Your task to perform on an android device: open app "WhatsApp Messenger" (install if not already installed) Image 0: 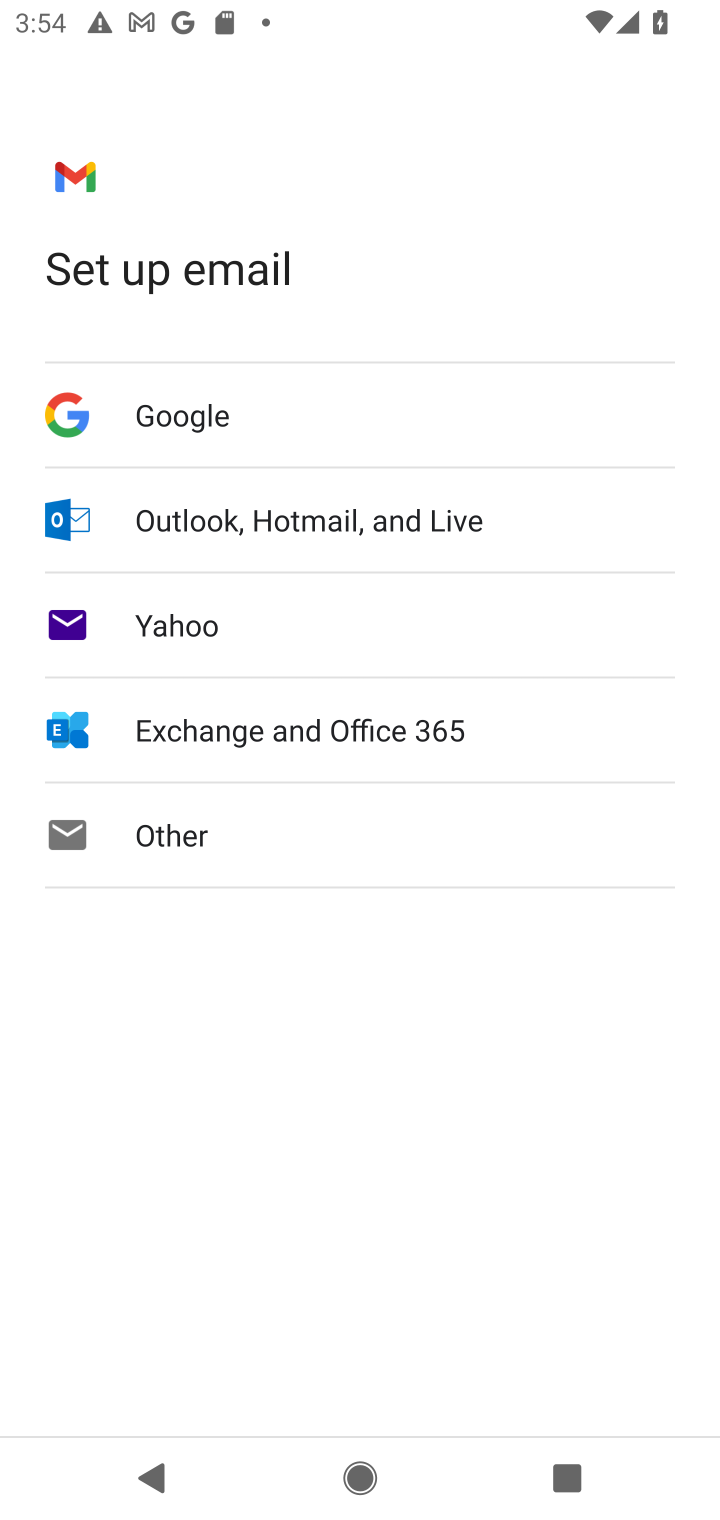
Step 0: press home button
Your task to perform on an android device: open app "WhatsApp Messenger" (install if not already installed) Image 1: 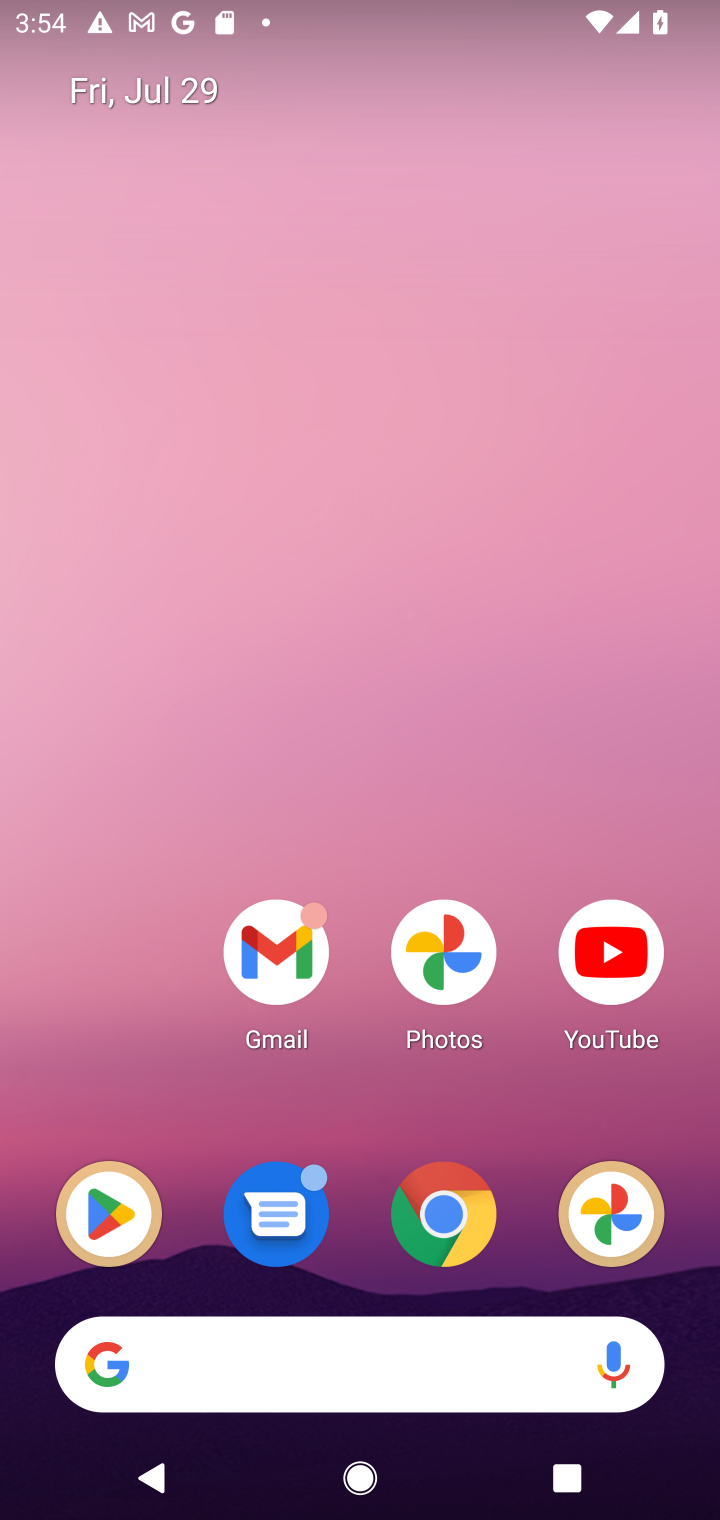
Step 1: click (130, 1199)
Your task to perform on an android device: open app "WhatsApp Messenger" (install if not already installed) Image 2: 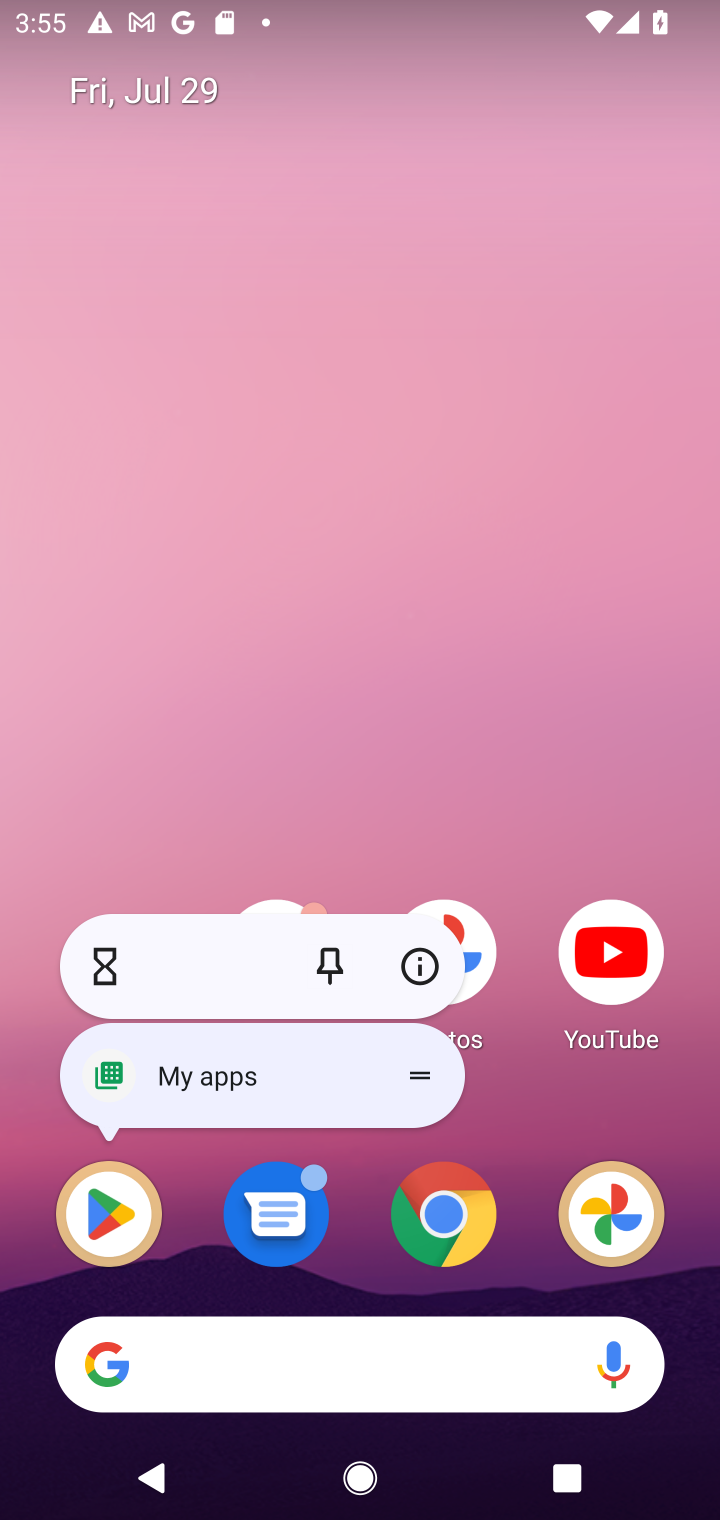
Step 2: click (106, 1208)
Your task to perform on an android device: open app "WhatsApp Messenger" (install if not already installed) Image 3: 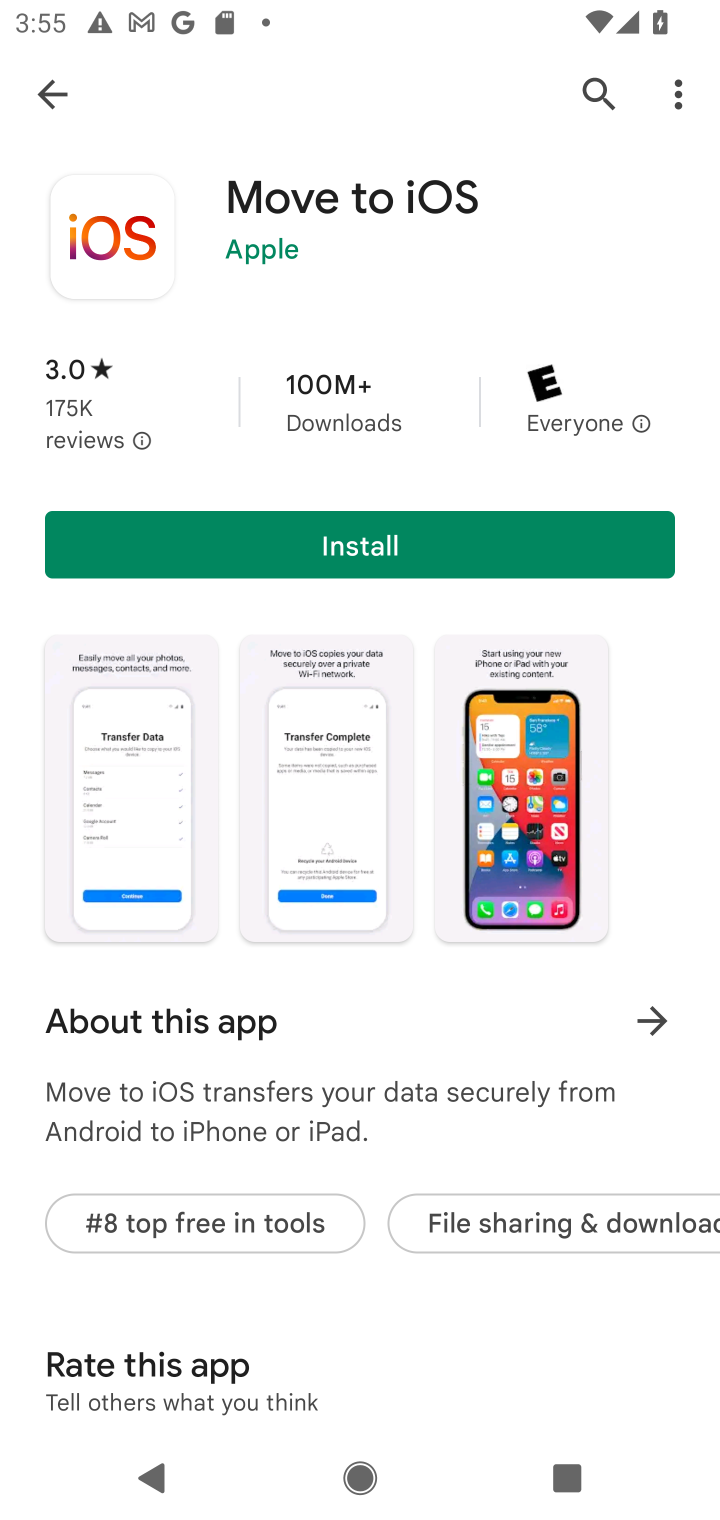
Step 3: click (57, 103)
Your task to perform on an android device: open app "WhatsApp Messenger" (install if not already installed) Image 4: 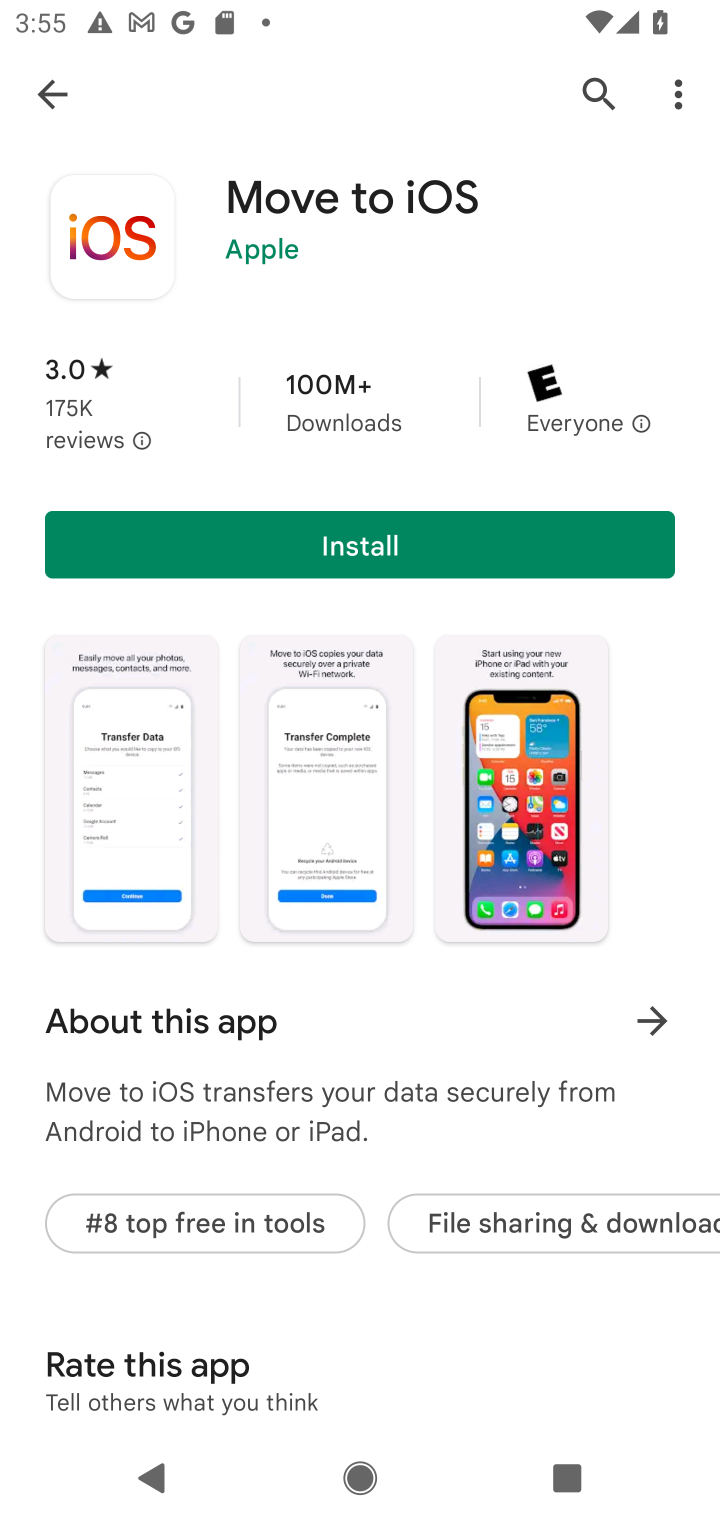
Step 4: click (53, 77)
Your task to perform on an android device: open app "WhatsApp Messenger" (install if not already installed) Image 5: 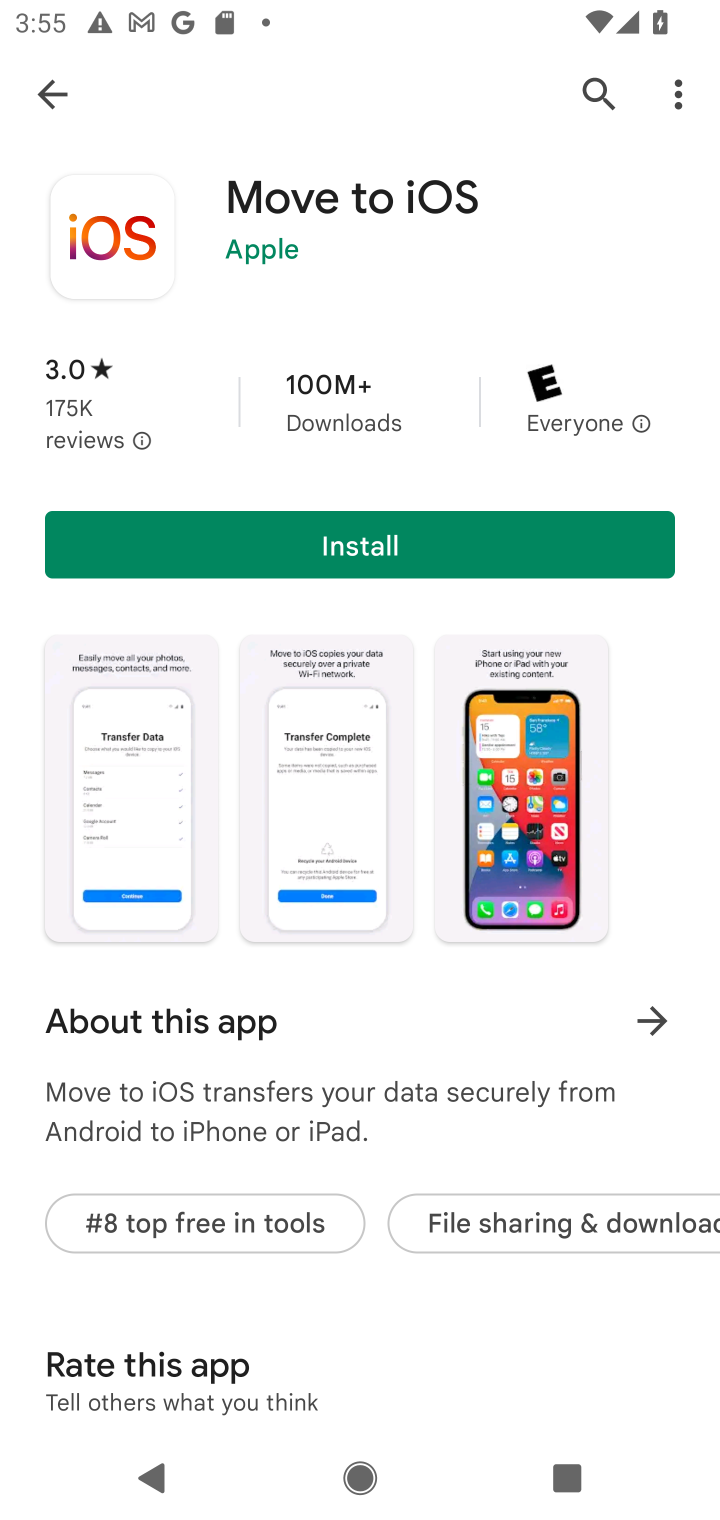
Step 5: click (50, 104)
Your task to perform on an android device: open app "WhatsApp Messenger" (install if not already installed) Image 6: 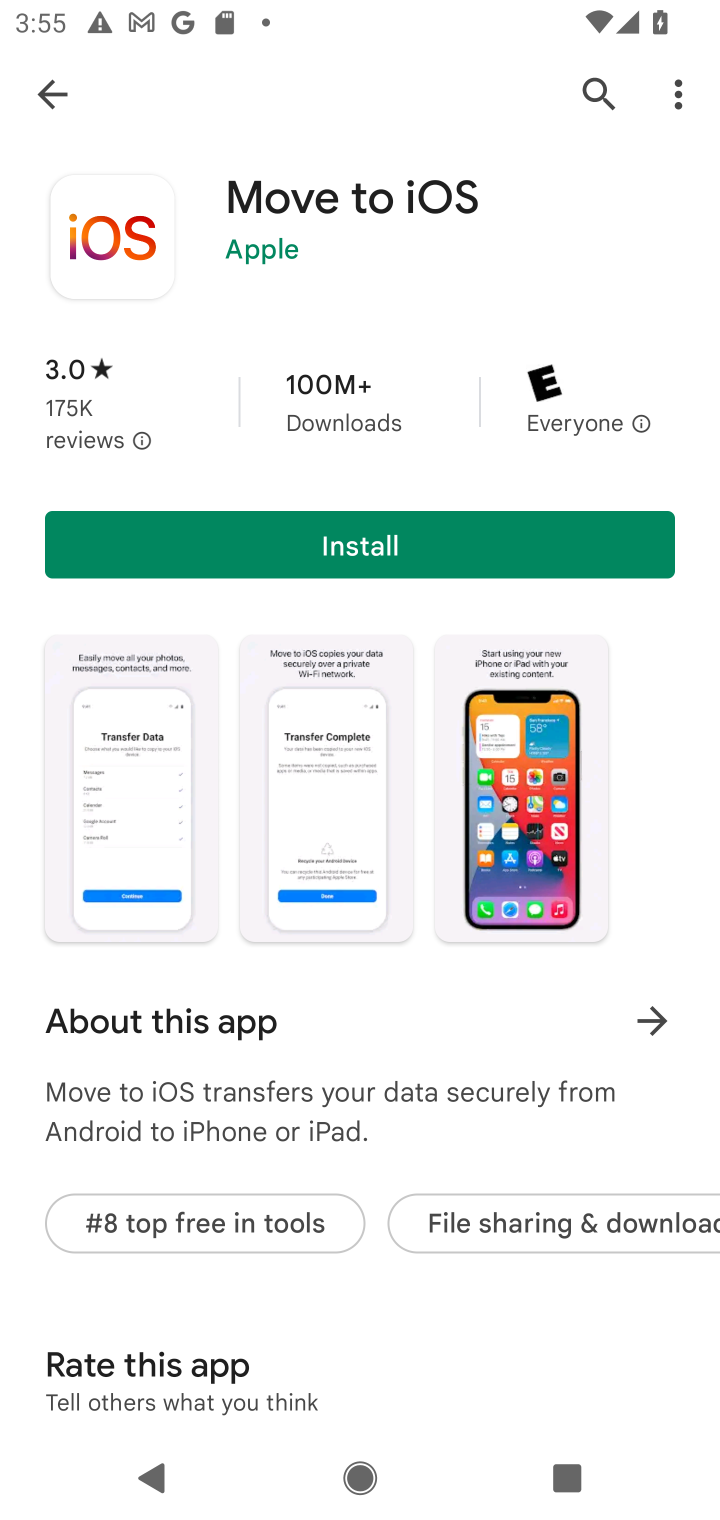
Step 6: click (47, 125)
Your task to perform on an android device: open app "WhatsApp Messenger" (install if not already installed) Image 7: 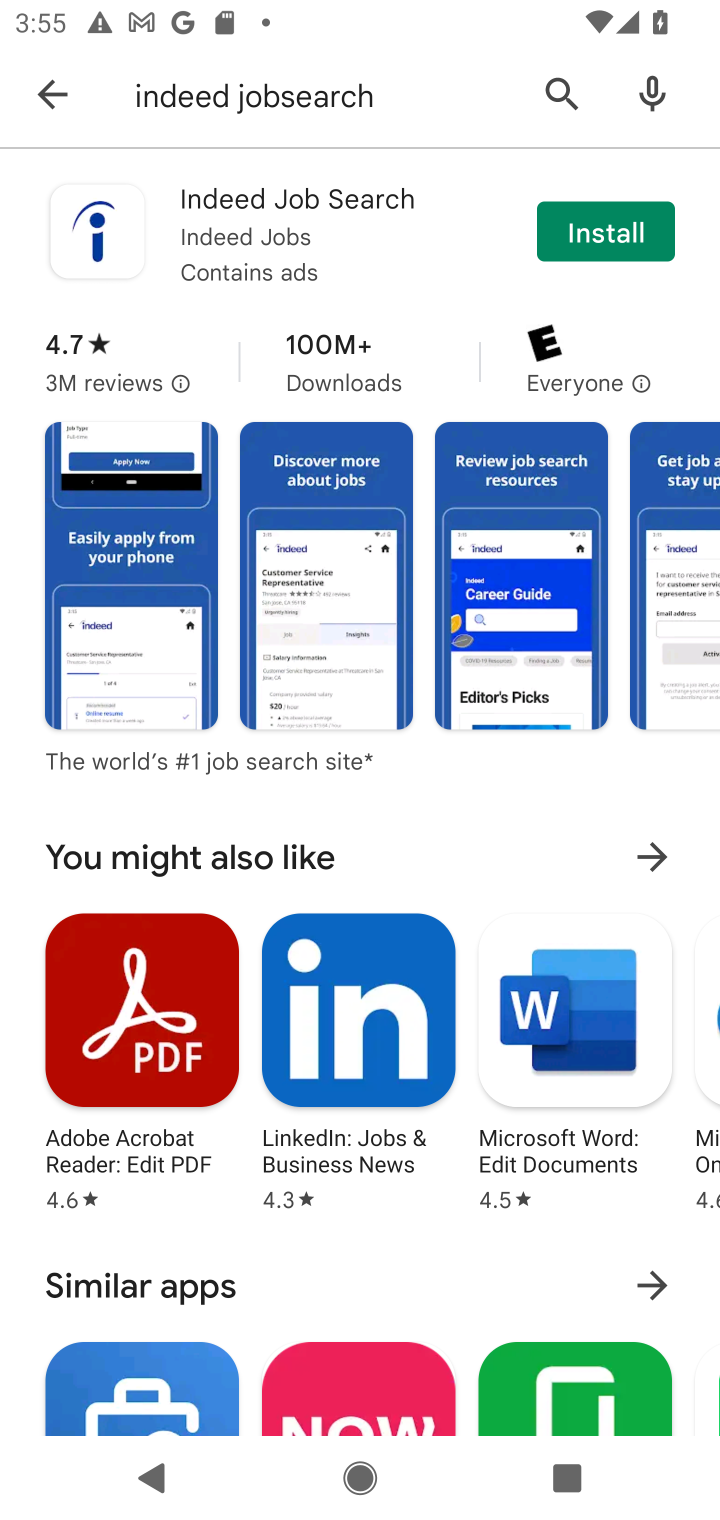
Step 7: click (357, 99)
Your task to perform on an android device: open app "WhatsApp Messenger" (install if not already installed) Image 8: 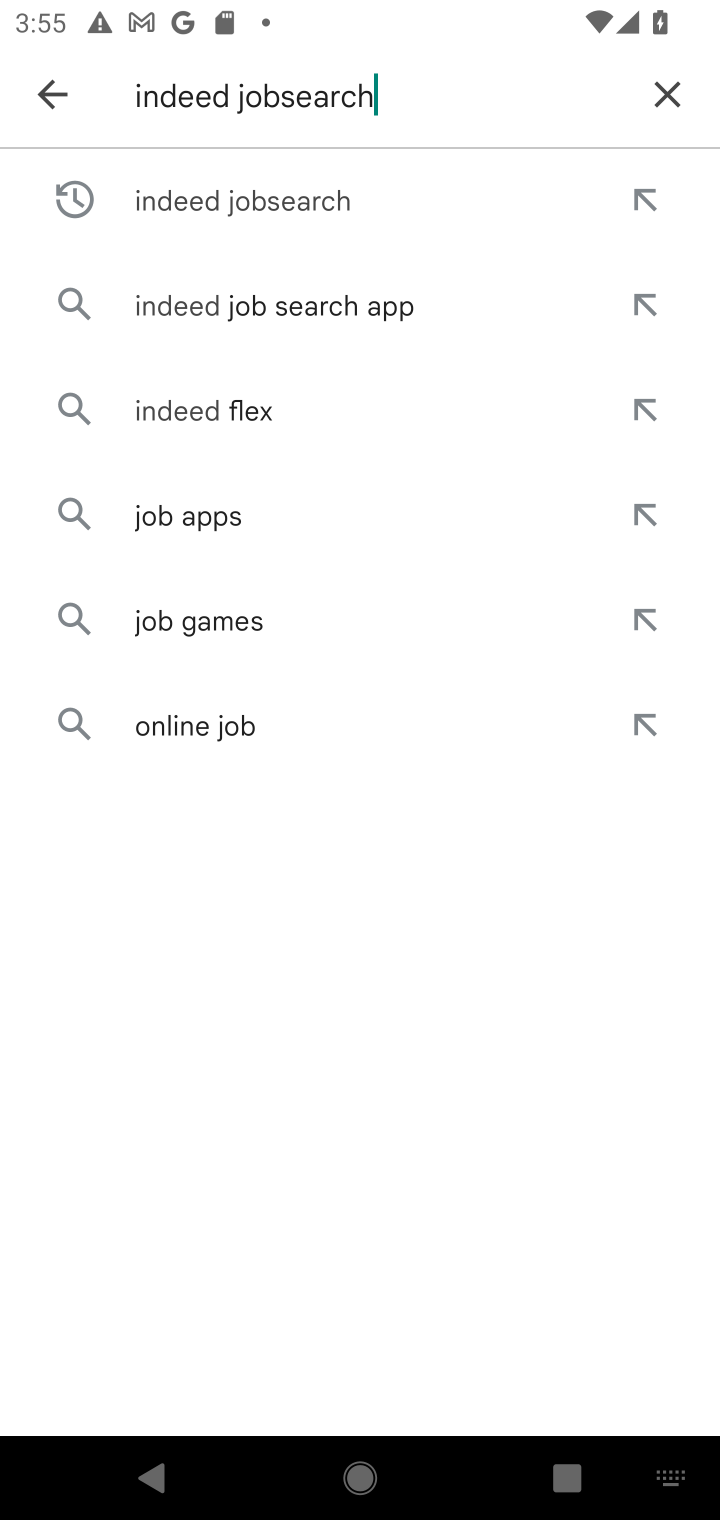
Step 8: click (671, 74)
Your task to perform on an android device: open app "WhatsApp Messenger" (install if not already installed) Image 9: 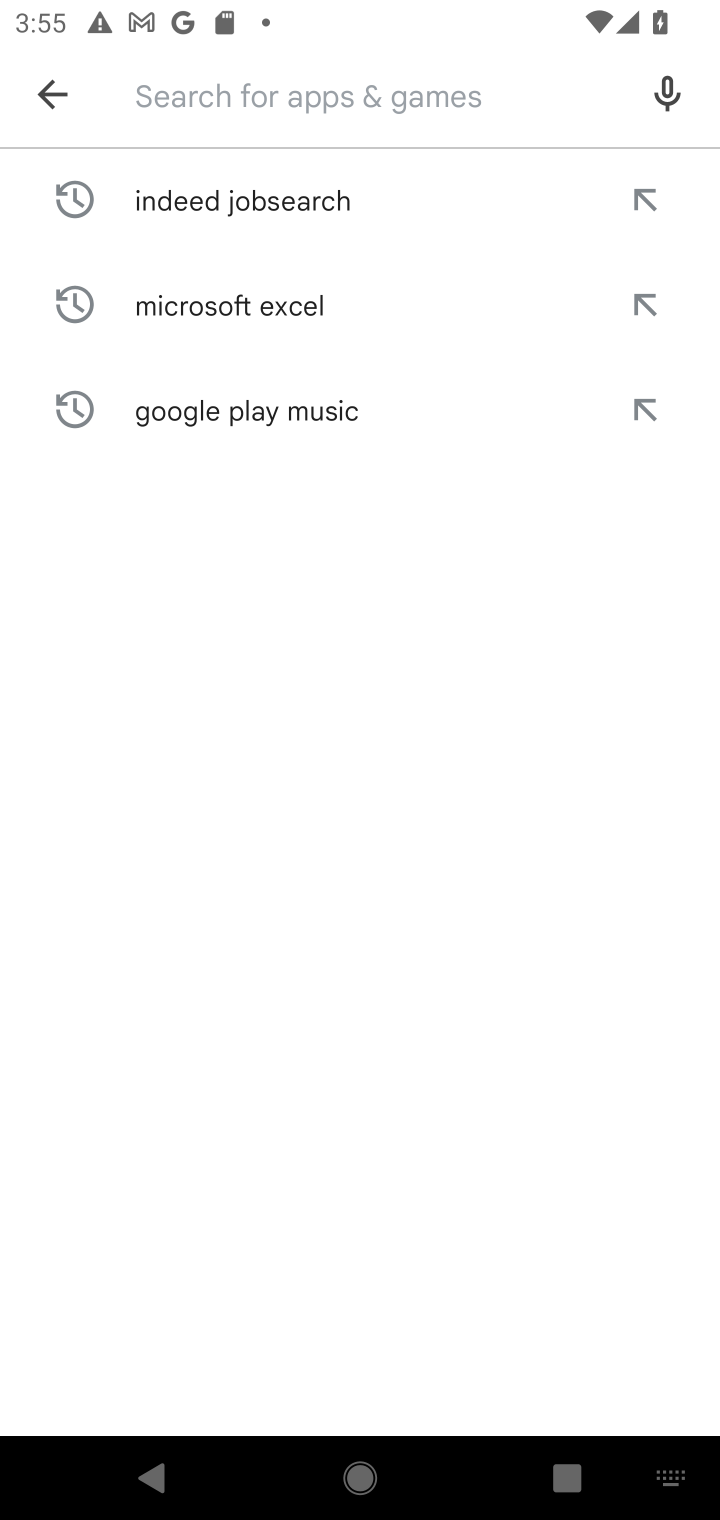
Step 9: type "whatsapp web"
Your task to perform on an android device: open app "WhatsApp Messenger" (install if not already installed) Image 10: 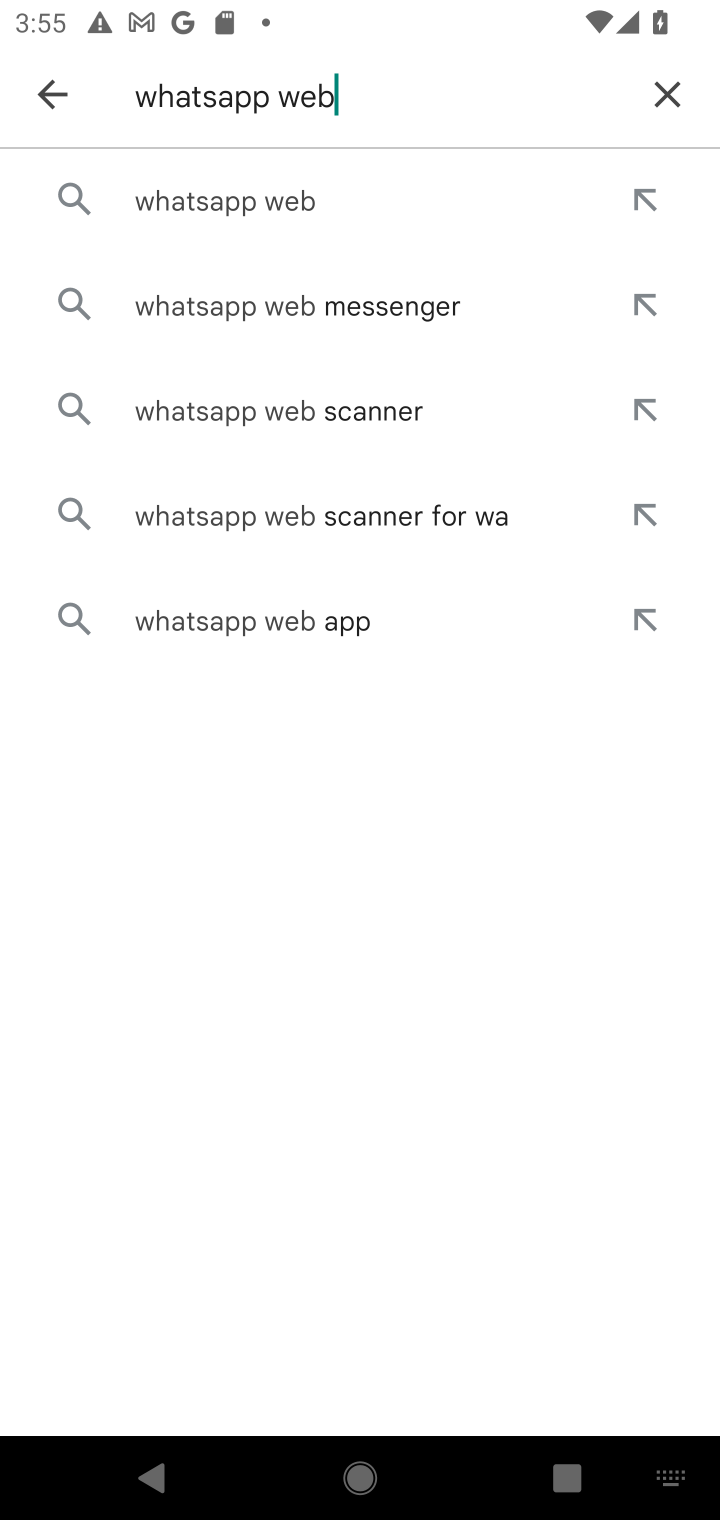
Step 10: click (268, 239)
Your task to perform on an android device: open app "WhatsApp Messenger" (install if not already installed) Image 11: 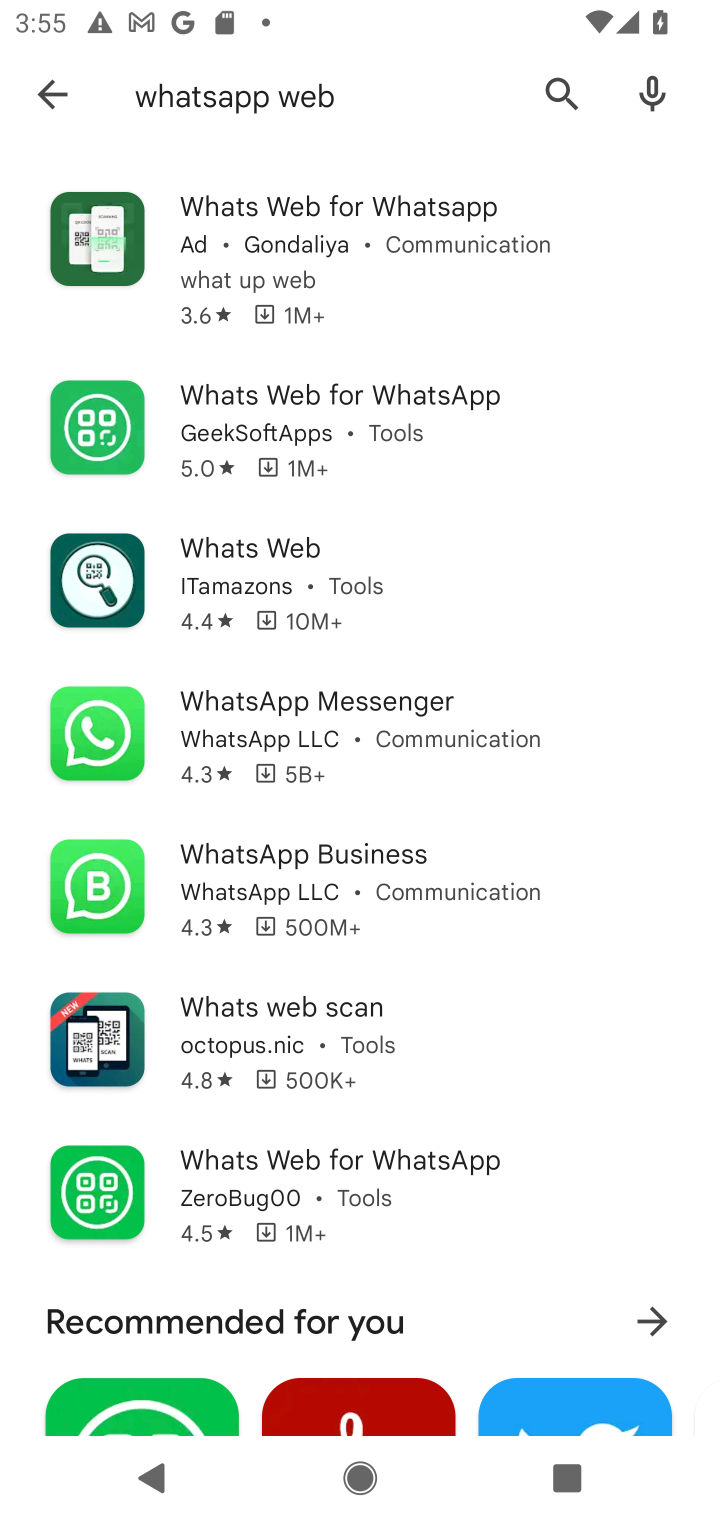
Step 11: click (314, 733)
Your task to perform on an android device: open app "WhatsApp Messenger" (install if not already installed) Image 12: 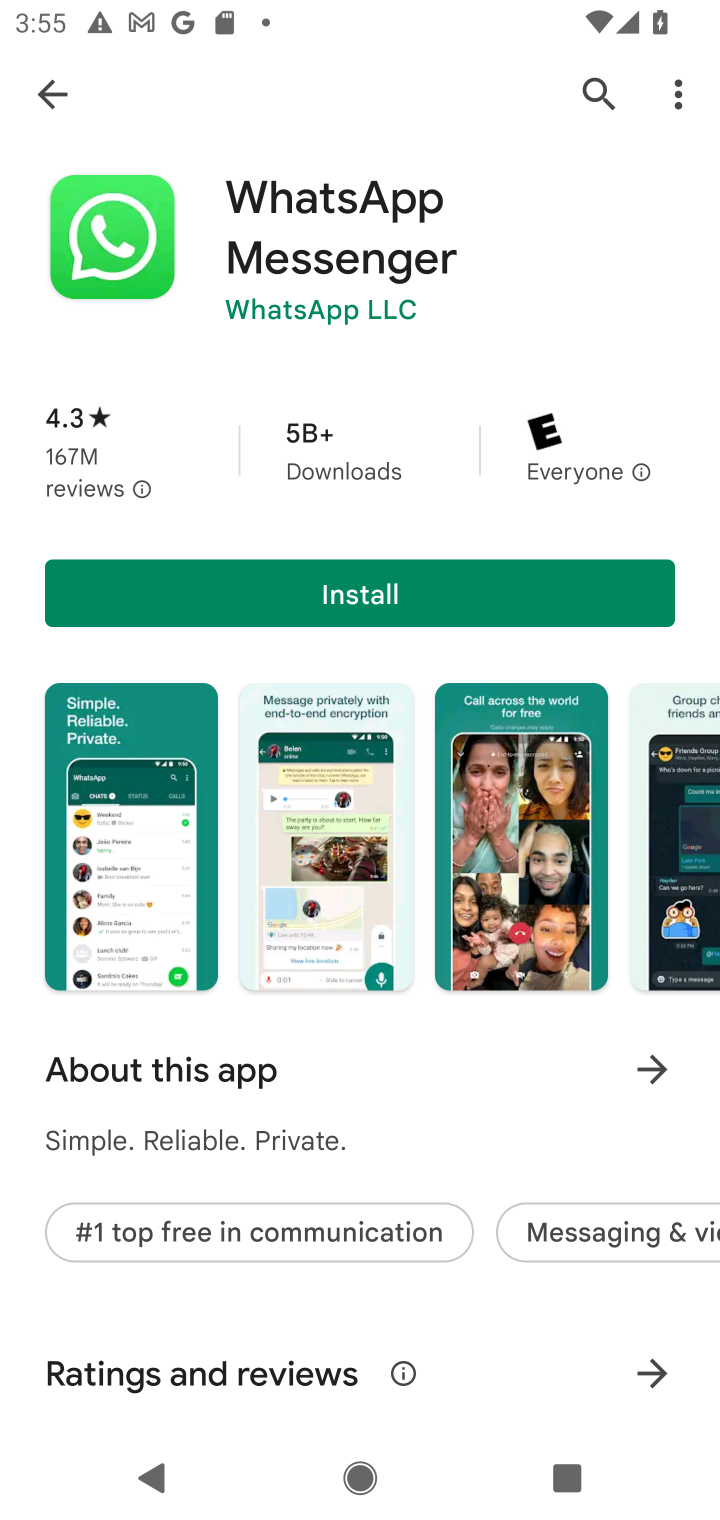
Step 12: click (373, 584)
Your task to perform on an android device: open app "WhatsApp Messenger" (install if not already installed) Image 13: 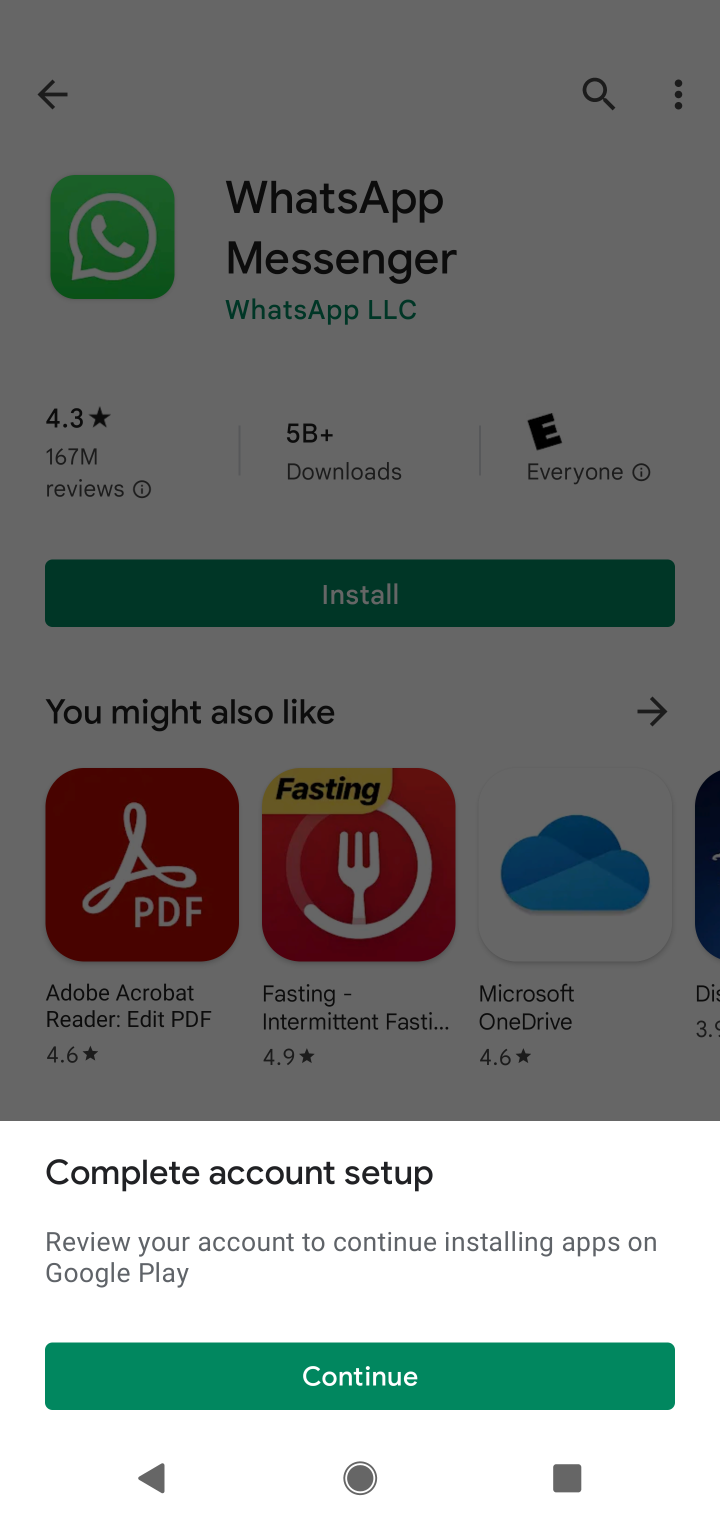
Step 13: click (294, 1387)
Your task to perform on an android device: open app "WhatsApp Messenger" (install if not already installed) Image 14: 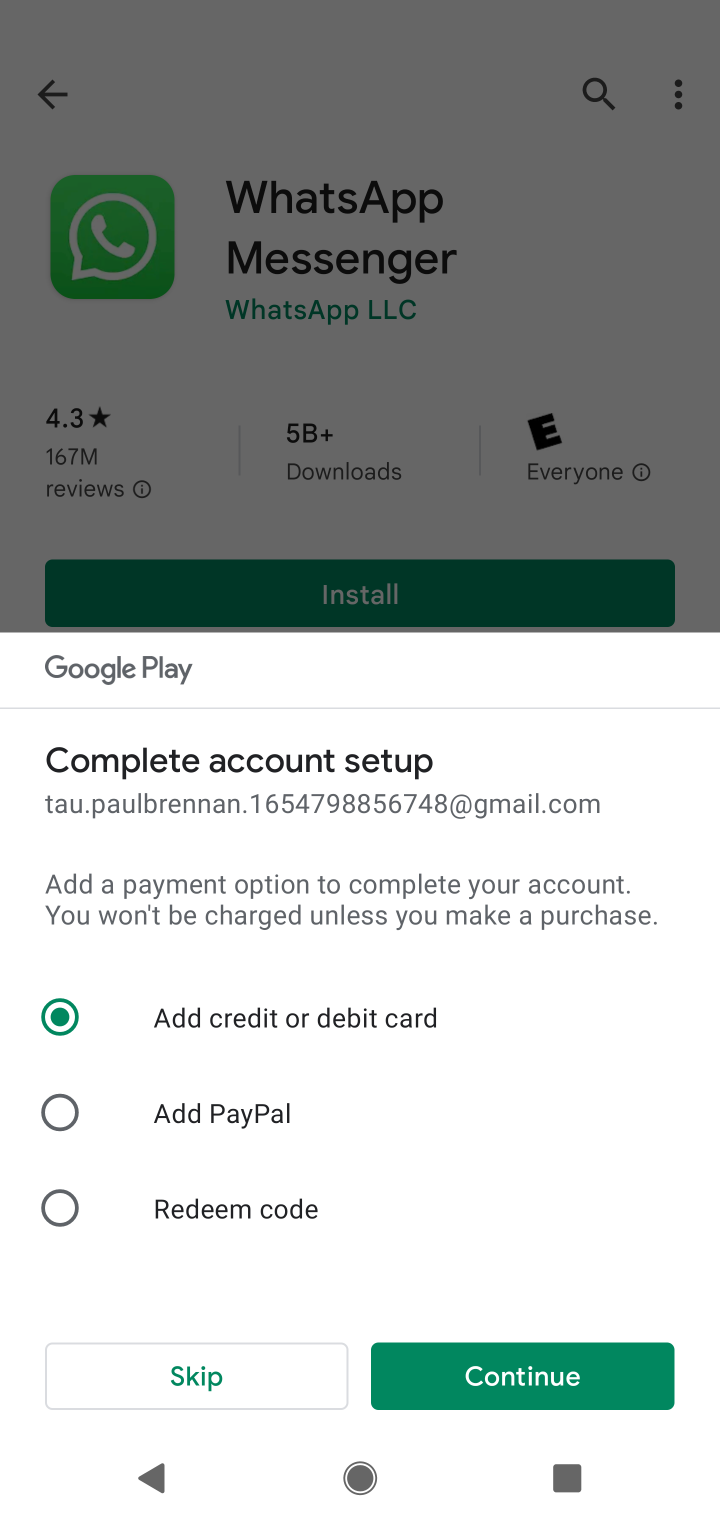
Step 14: click (263, 1381)
Your task to perform on an android device: open app "WhatsApp Messenger" (install if not already installed) Image 15: 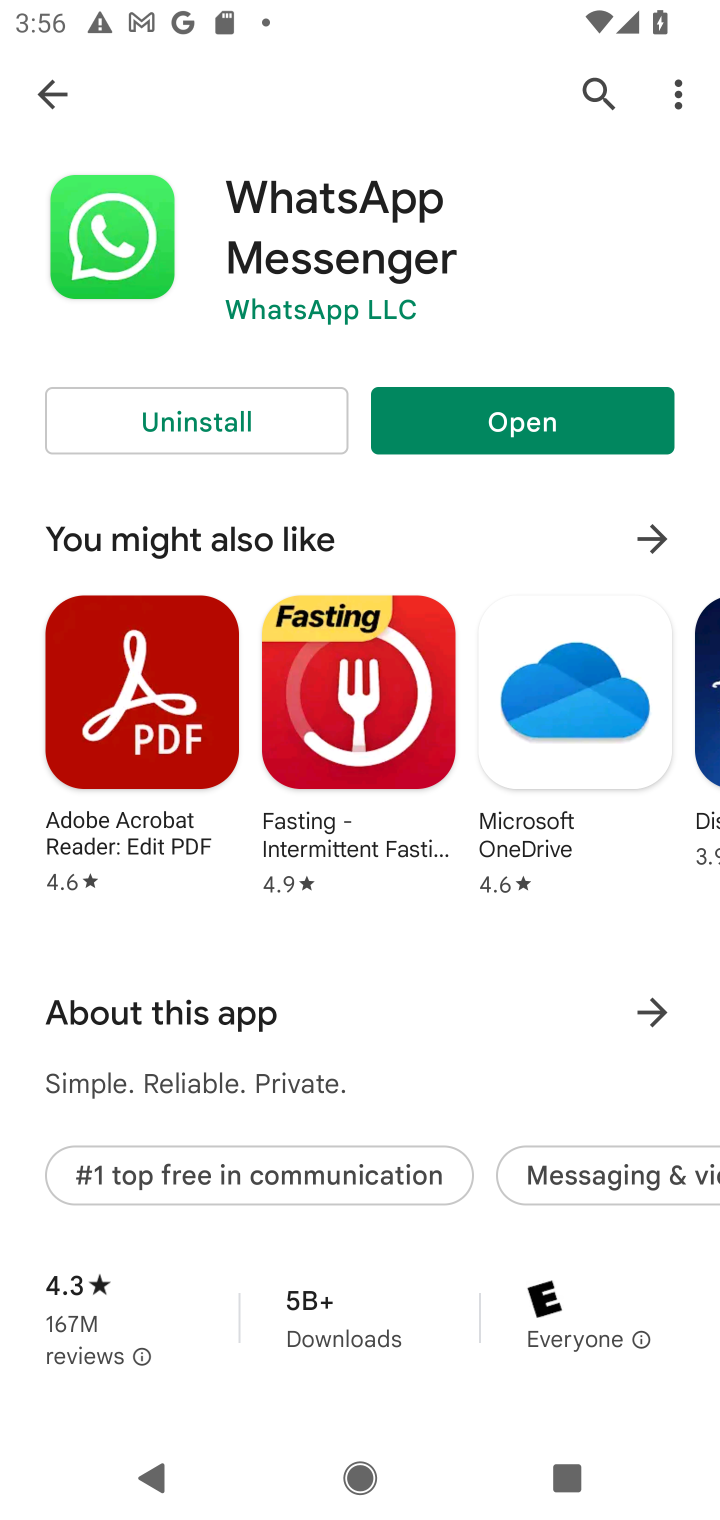
Step 15: click (548, 389)
Your task to perform on an android device: open app "WhatsApp Messenger" (install if not already installed) Image 16: 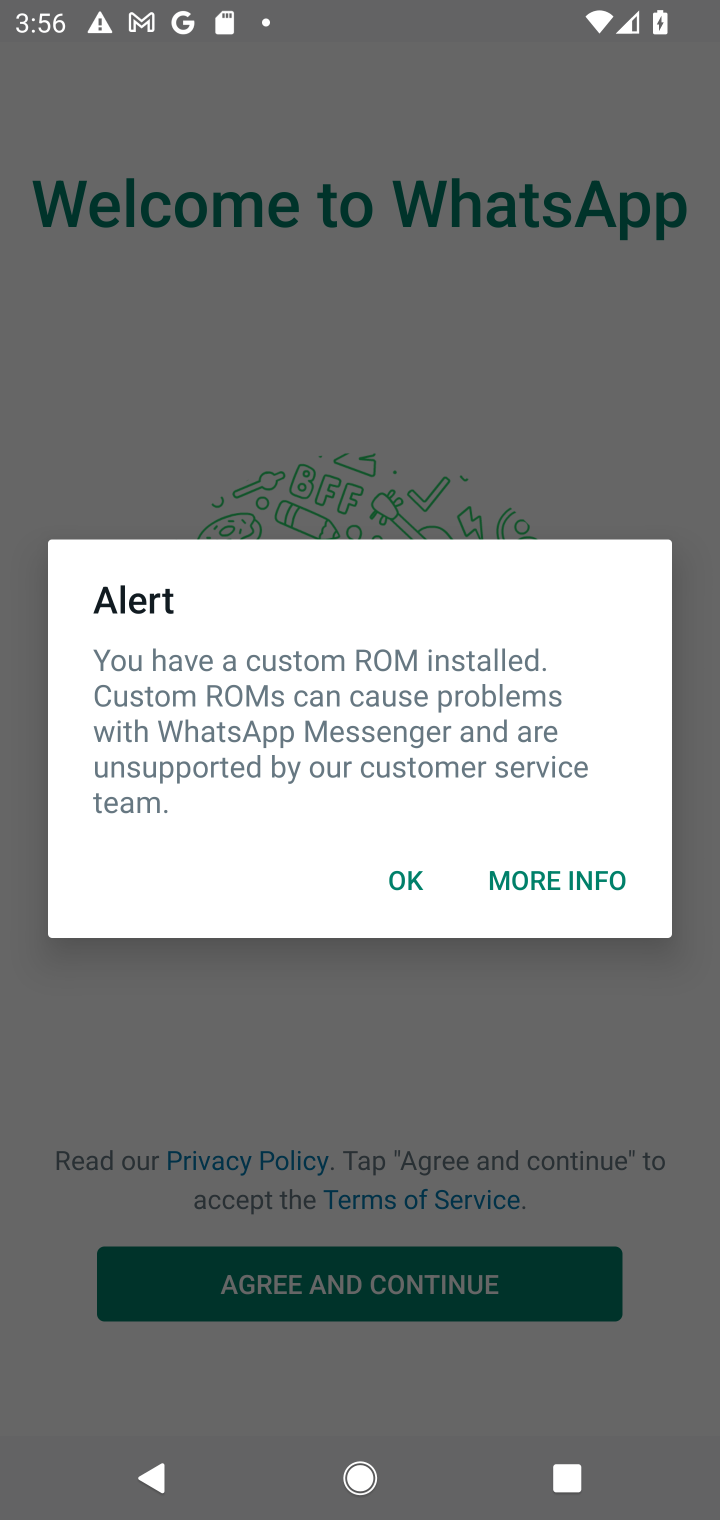
Step 16: click (411, 877)
Your task to perform on an android device: open app "WhatsApp Messenger" (install if not already installed) Image 17: 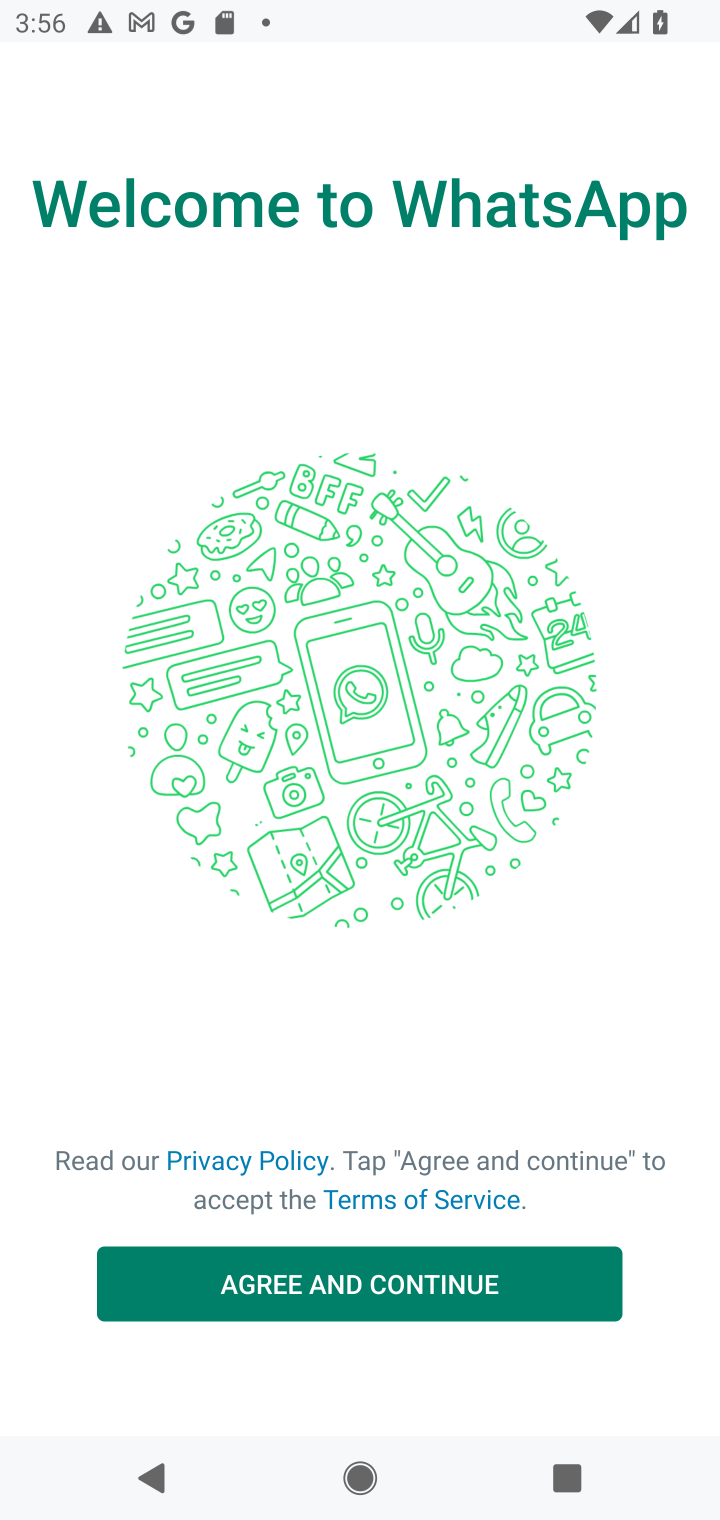
Step 17: click (328, 1288)
Your task to perform on an android device: open app "WhatsApp Messenger" (install if not already installed) Image 18: 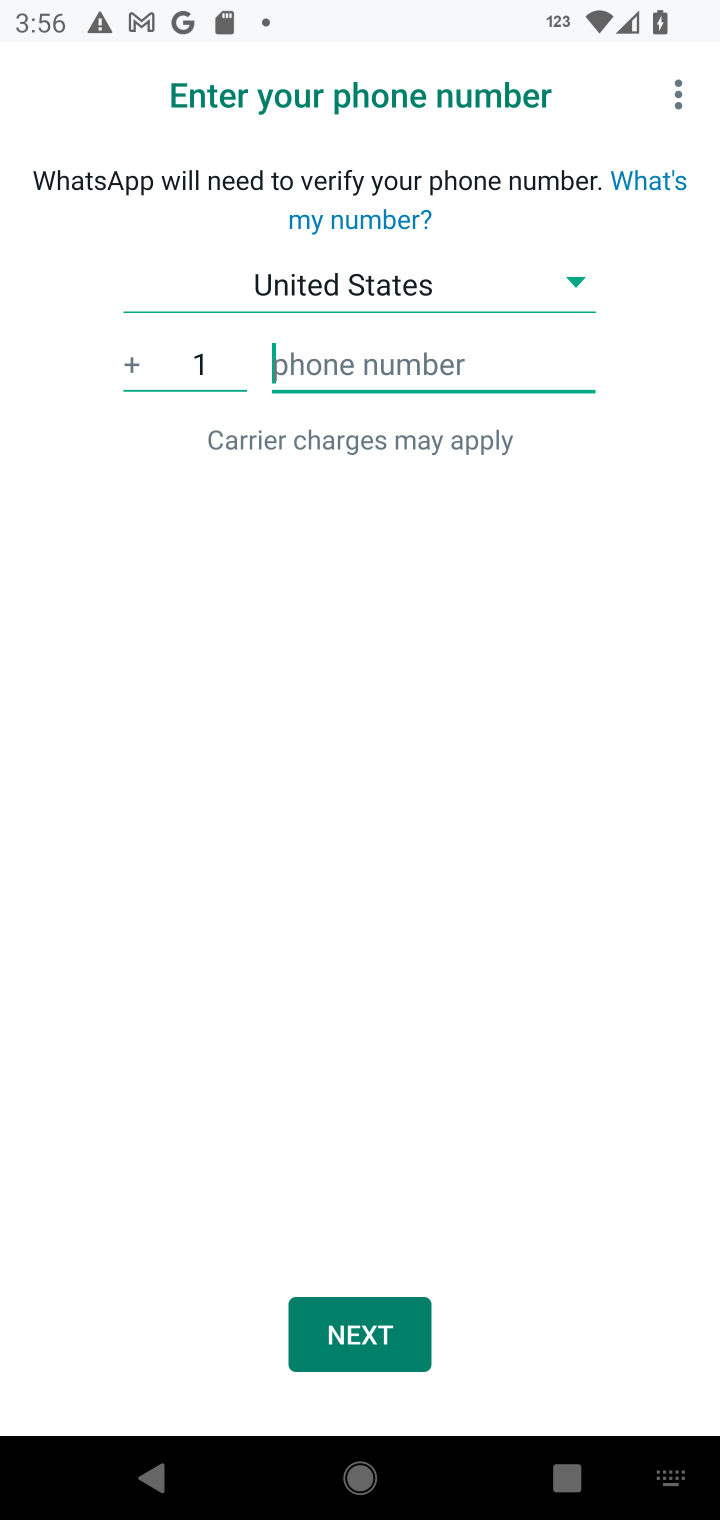
Step 18: task complete